Your task to perform on an android device: change text size in settings app Image 0: 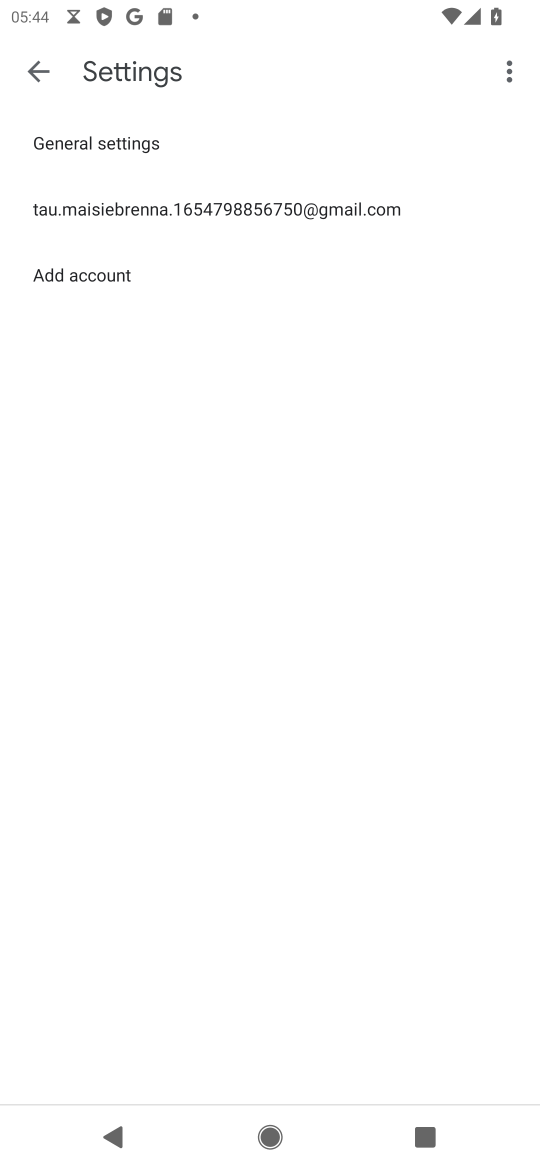
Step 0: press home button
Your task to perform on an android device: change text size in settings app Image 1: 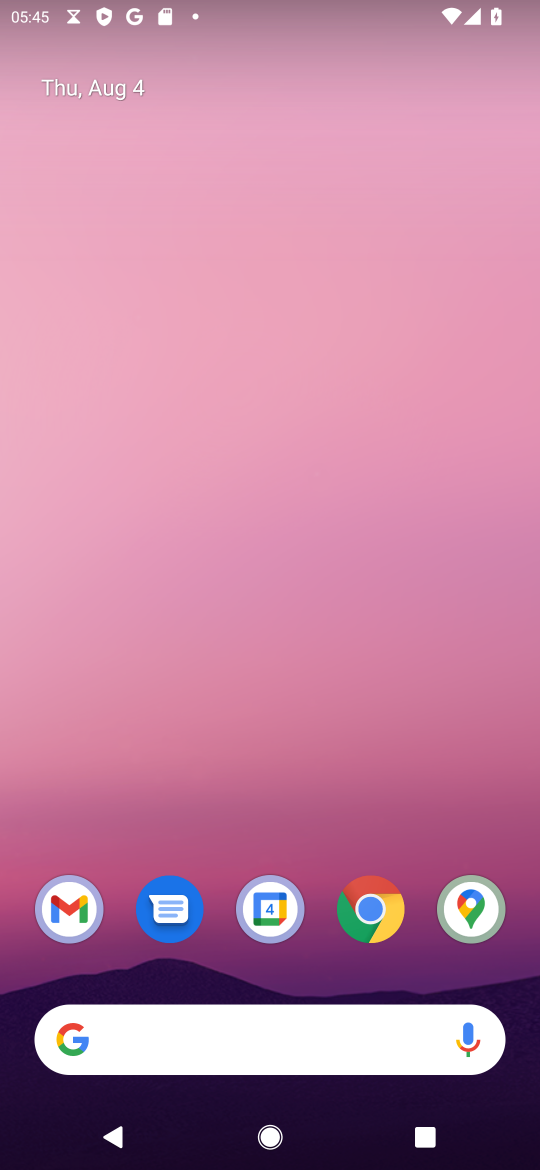
Step 1: drag from (239, 1035) to (394, 308)
Your task to perform on an android device: change text size in settings app Image 2: 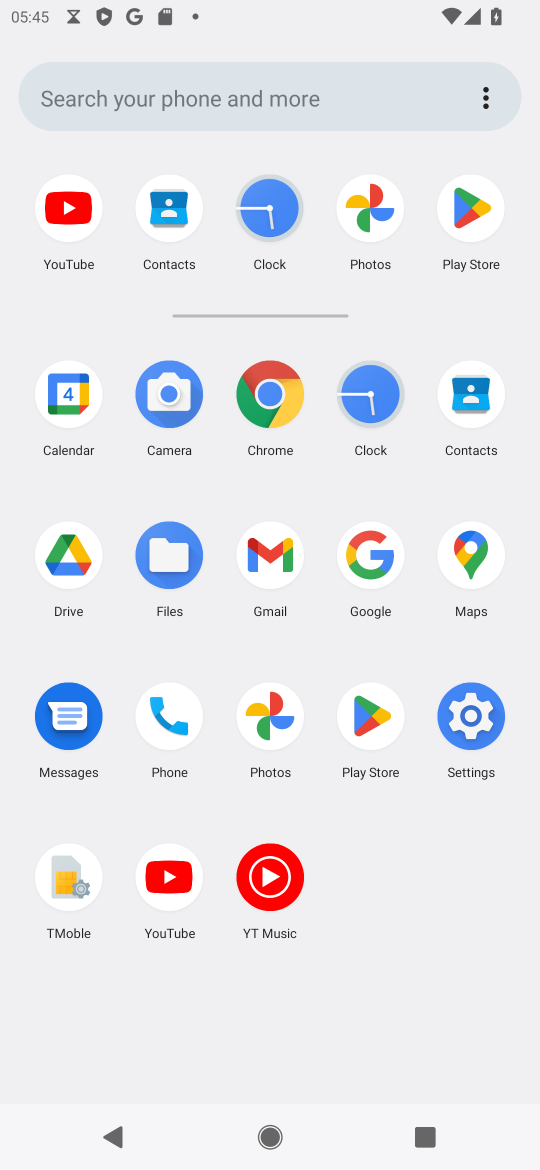
Step 2: click (473, 724)
Your task to perform on an android device: change text size in settings app Image 3: 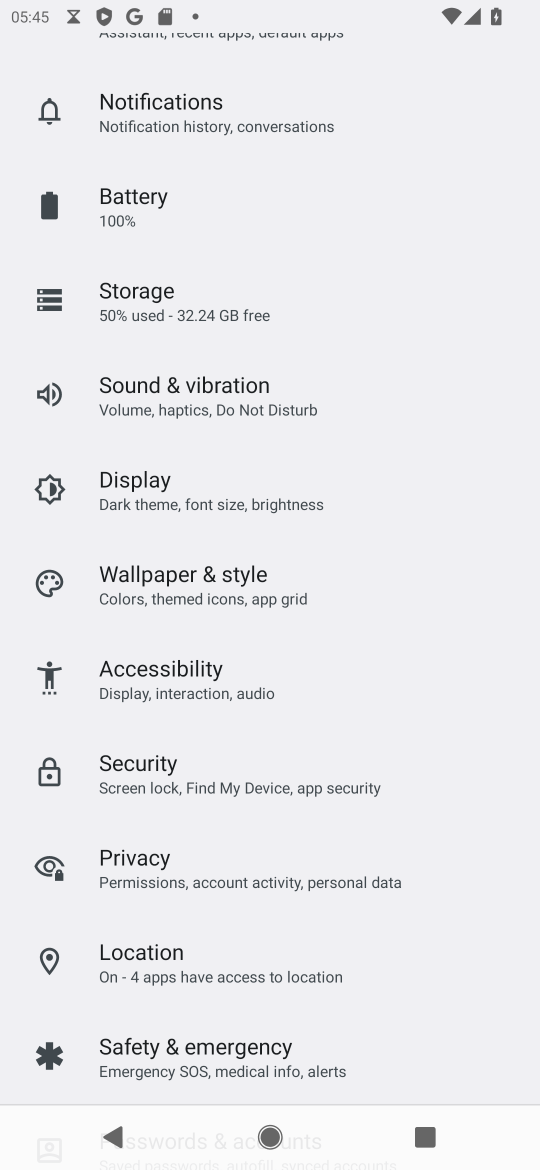
Step 3: click (189, 502)
Your task to perform on an android device: change text size in settings app Image 4: 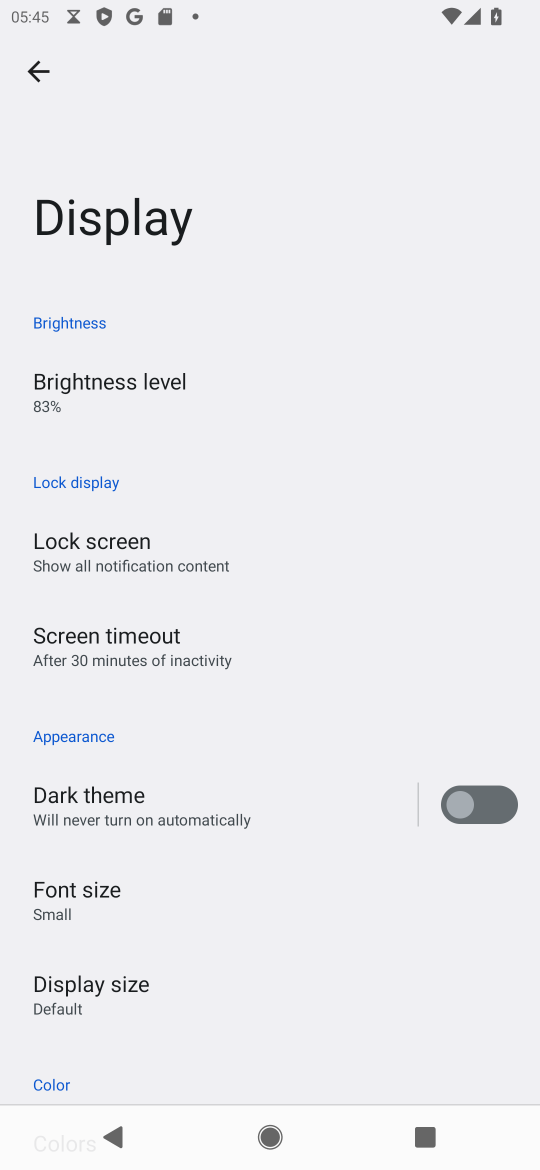
Step 4: drag from (258, 856) to (393, 367)
Your task to perform on an android device: change text size in settings app Image 5: 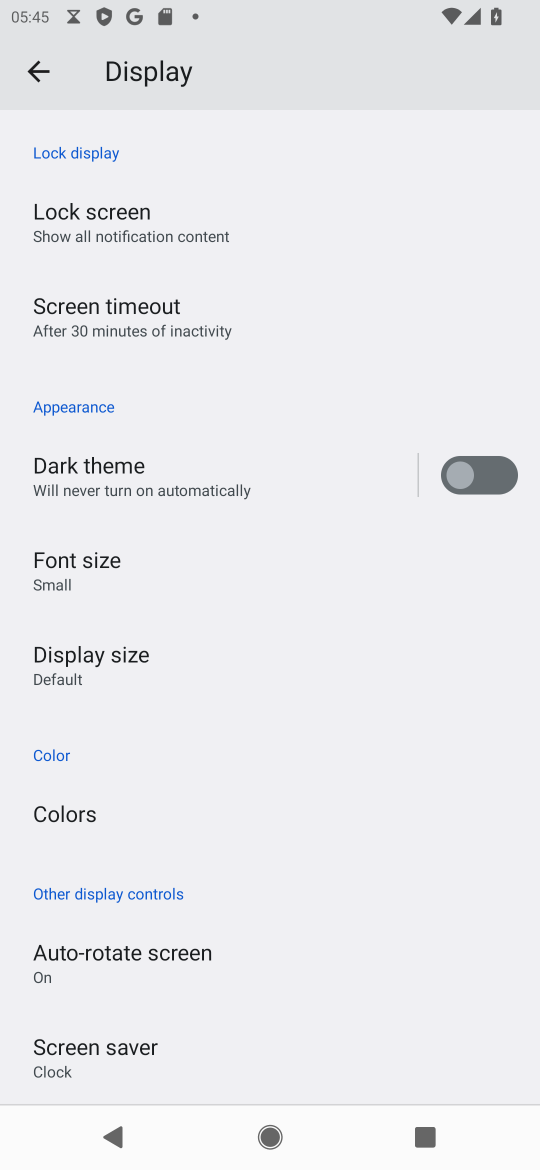
Step 5: click (94, 571)
Your task to perform on an android device: change text size in settings app Image 6: 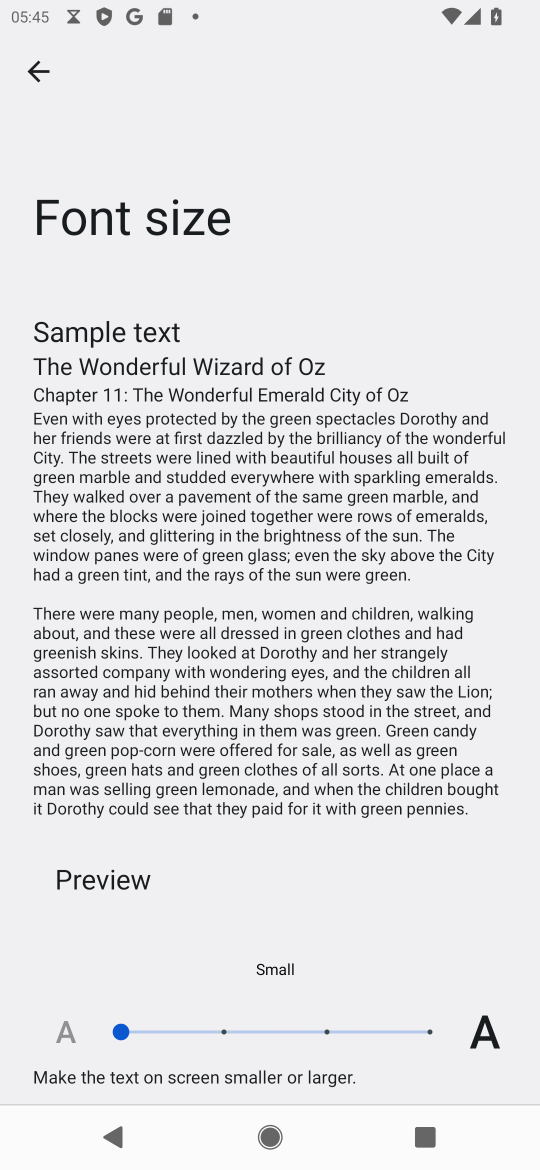
Step 6: click (224, 1028)
Your task to perform on an android device: change text size in settings app Image 7: 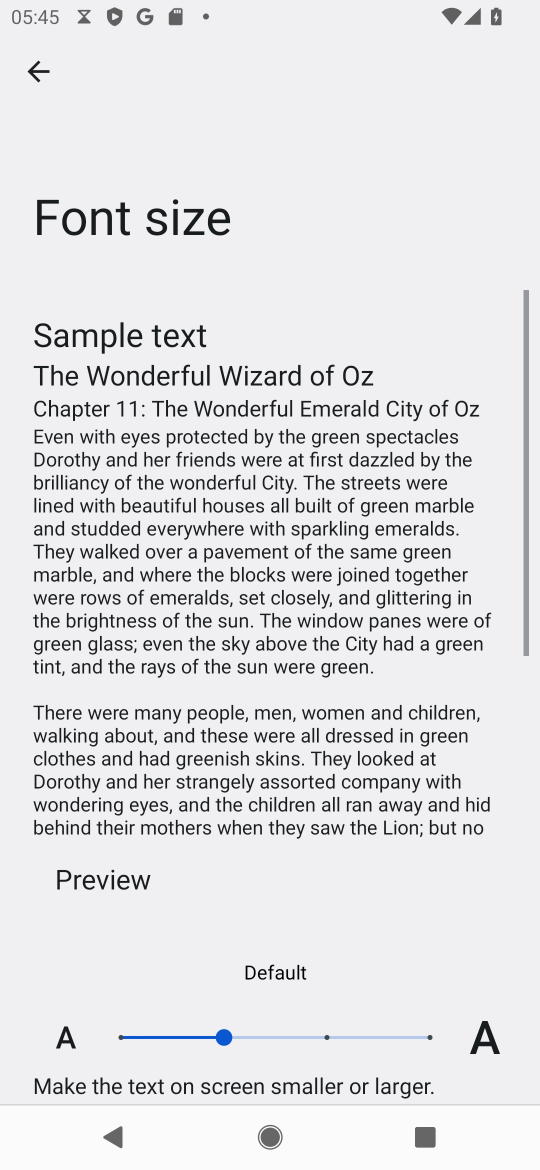
Step 7: click (323, 1029)
Your task to perform on an android device: change text size in settings app Image 8: 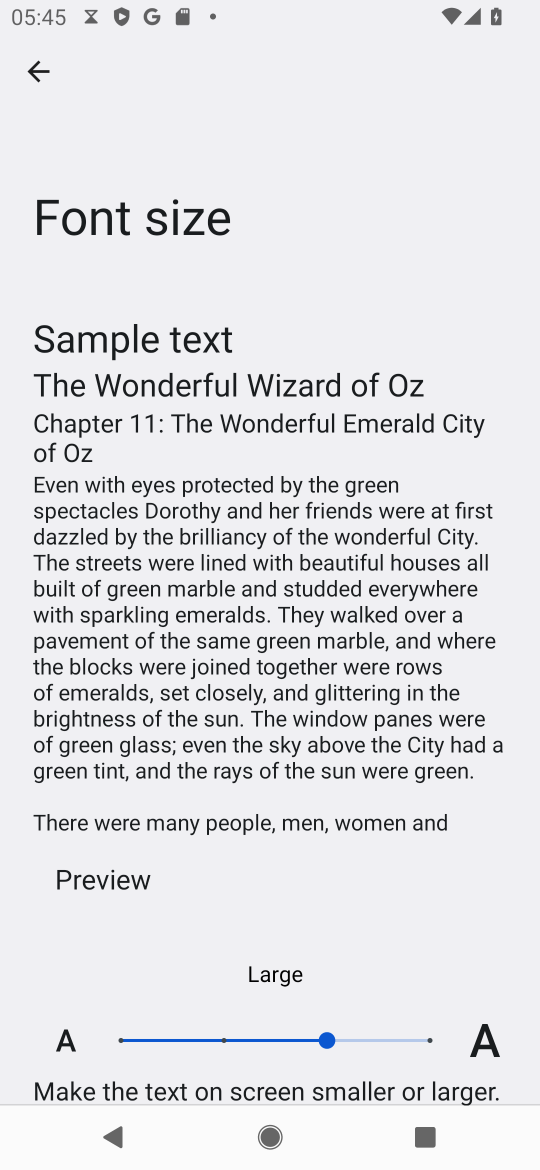
Step 8: task complete